Your task to perform on an android device: Open Youtube and go to "Your channel" Image 0: 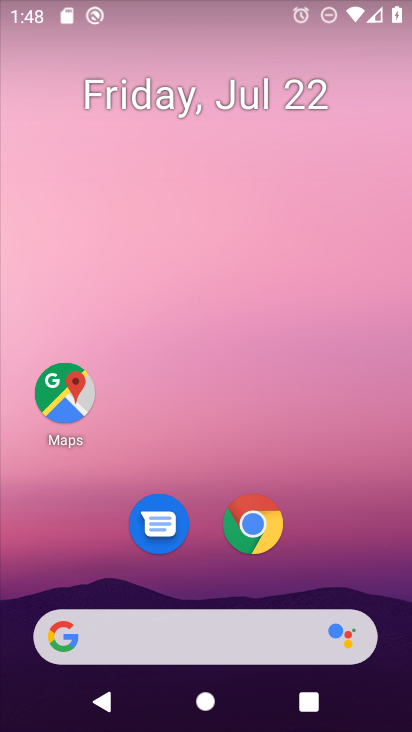
Step 0: drag from (305, 549) to (279, 34)
Your task to perform on an android device: Open Youtube and go to "Your channel" Image 1: 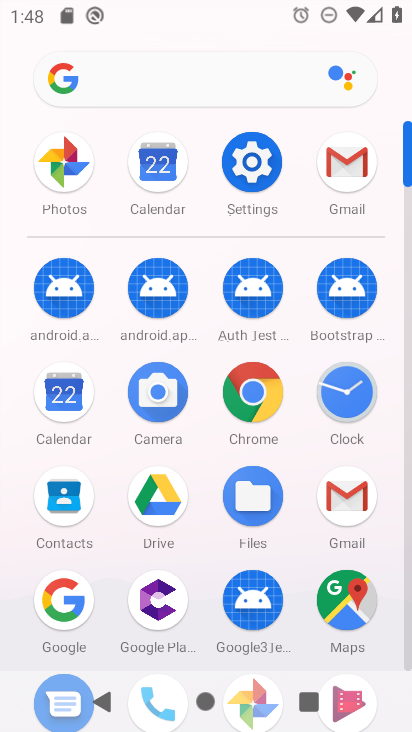
Step 1: drag from (208, 507) to (184, 207)
Your task to perform on an android device: Open Youtube and go to "Your channel" Image 2: 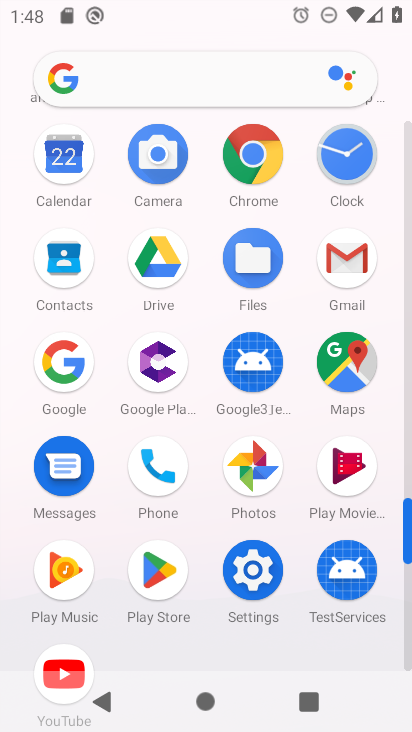
Step 2: drag from (90, 601) to (85, 360)
Your task to perform on an android device: Open Youtube and go to "Your channel" Image 3: 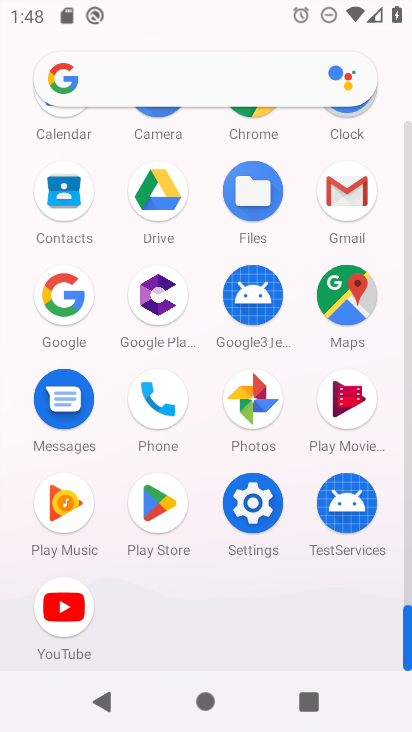
Step 3: click (63, 592)
Your task to perform on an android device: Open Youtube and go to "Your channel" Image 4: 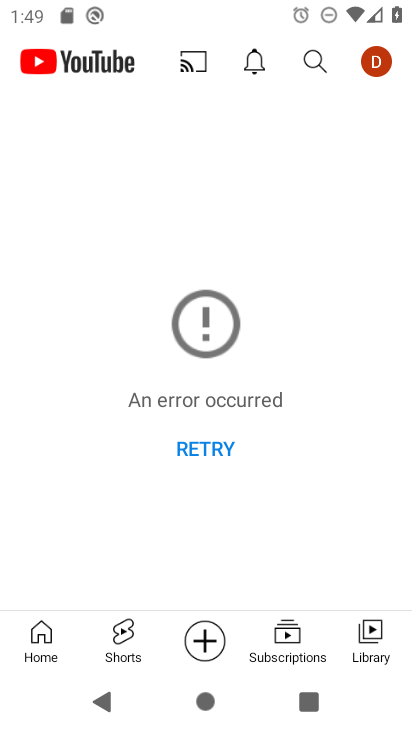
Step 4: click (375, 50)
Your task to perform on an android device: Open Youtube and go to "Your channel" Image 5: 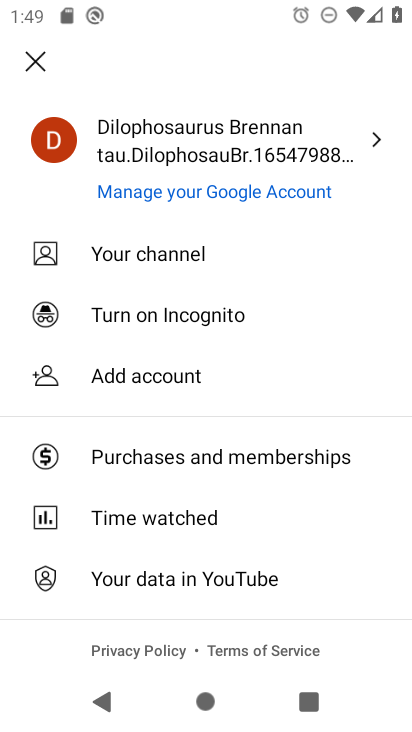
Step 5: click (198, 252)
Your task to perform on an android device: Open Youtube and go to "Your channel" Image 6: 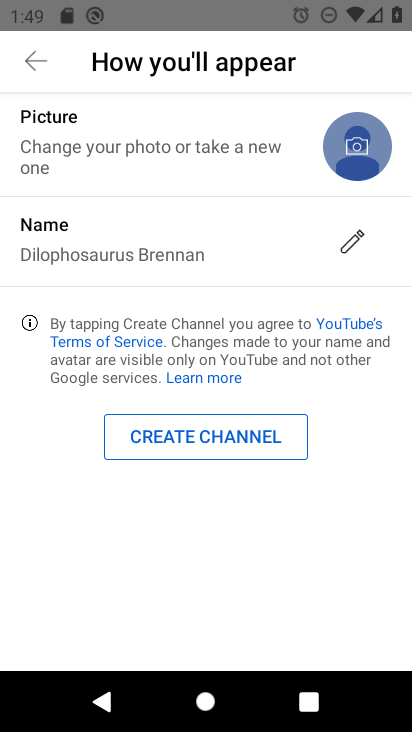
Step 6: task complete